Your task to perform on an android device: toggle translation in the chrome app Image 0: 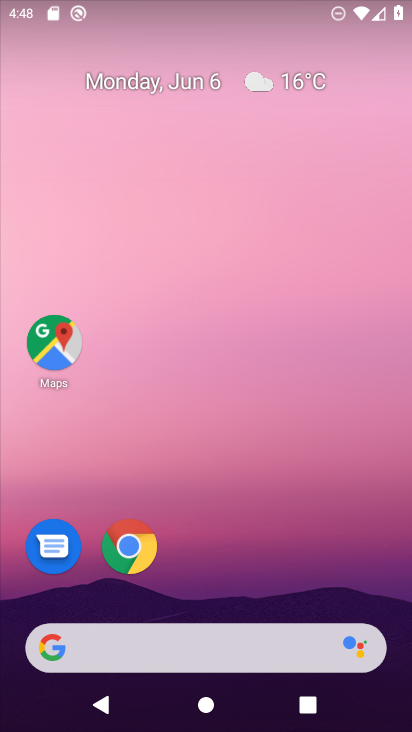
Step 0: click (131, 551)
Your task to perform on an android device: toggle translation in the chrome app Image 1: 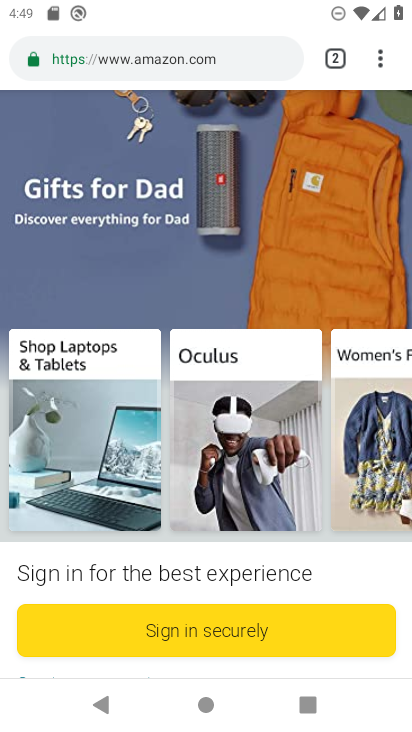
Step 1: drag from (379, 60) to (166, 573)
Your task to perform on an android device: toggle translation in the chrome app Image 2: 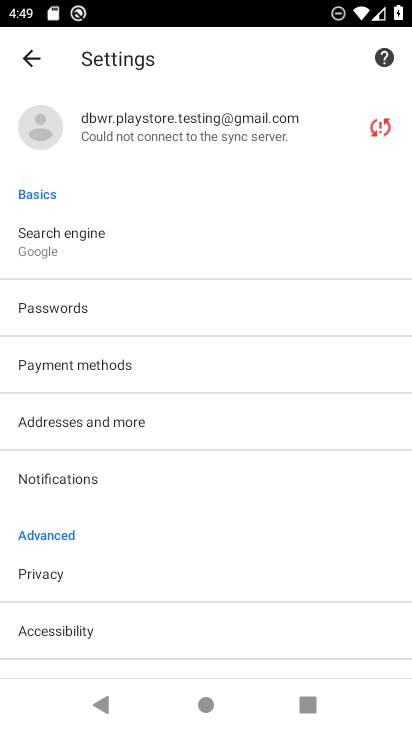
Step 2: drag from (179, 640) to (184, 83)
Your task to perform on an android device: toggle translation in the chrome app Image 3: 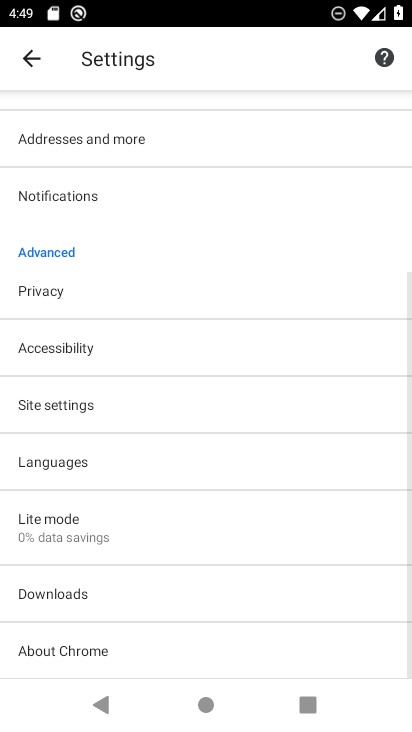
Step 3: click (59, 461)
Your task to perform on an android device: toggle translation in the chrome app Image 4: 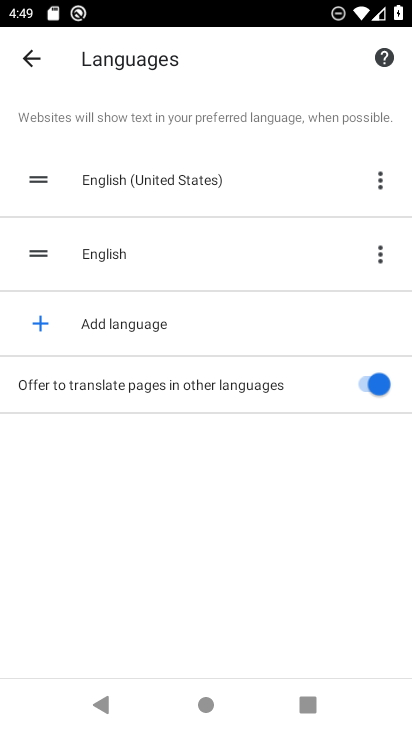
Step 4: click (374, 381)
Your task to perform on an android device: toggle translation in the chrome app Image 5: 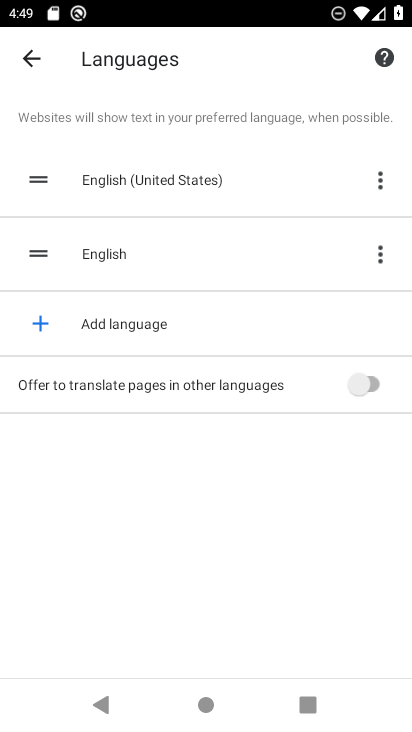
Step 5: task complete